Your task to perform on an android device: Search for vegetarian restaurants on Maps Image 0: 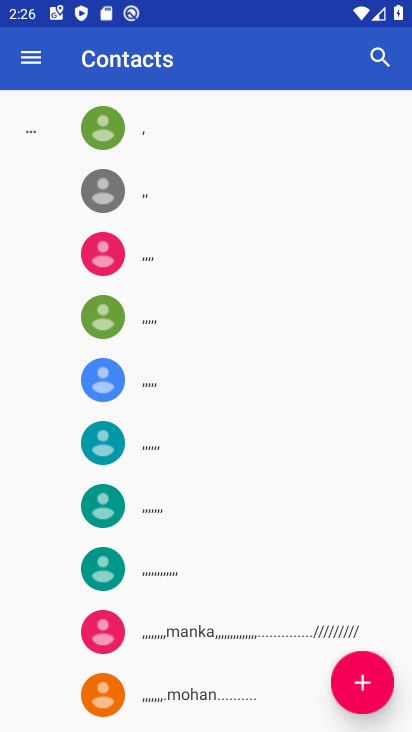
Step 0: press home button
Your task to perform on an android device: Search for vegetarian restaurants on Maps Image 1: 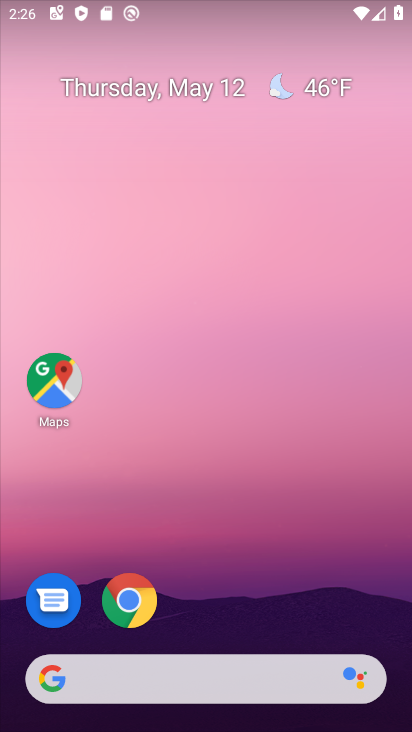
Step 1: drag from (206, 620) to (221, 257)
Your task to perform on an android device: Search for vegetarian restaurants on Maps Image 2: 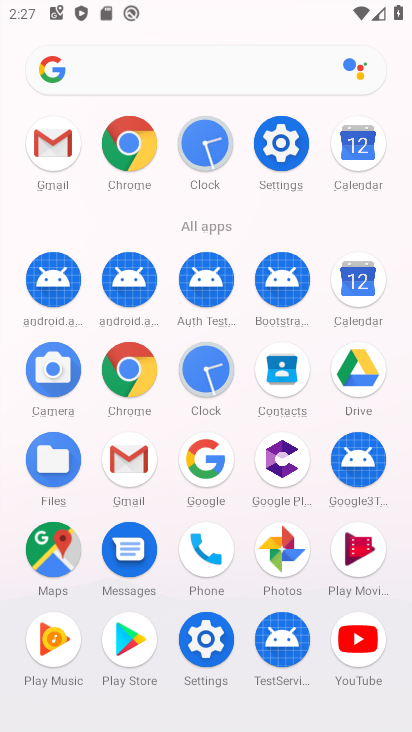
Step 2: click (38, 540)
Your task to perform on an android device: Search for vegetarian restaurants on Maps Image 3: 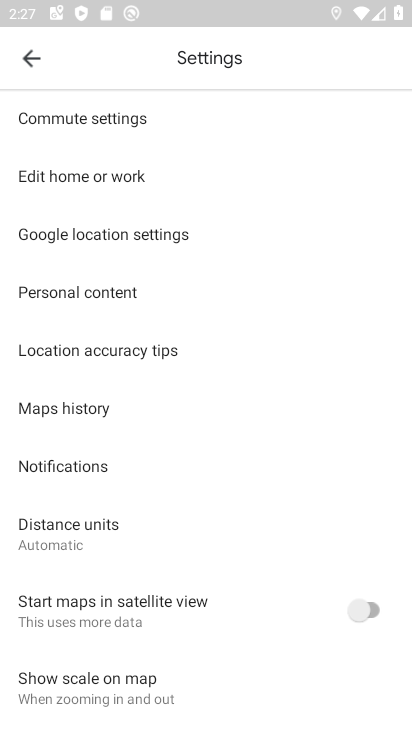
Step 3: click (20, 52)
Your task to perform on an android device: Search for vegetarian restaurants on Maps Image 4: 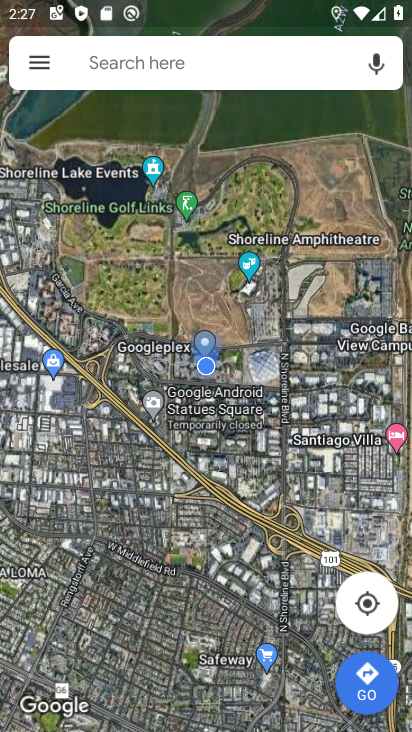
Step 4: click (147, 53)
Your task to perform on an android device: Search for vegetarian restaurants on Maps Image 5: 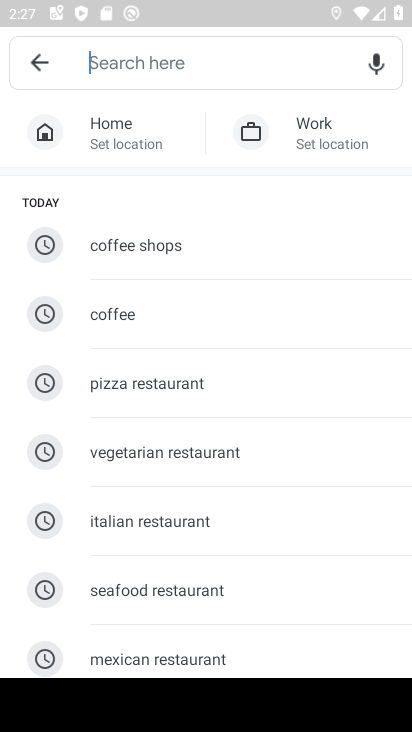
Step 5: type "vegetarian restaurants"
Your task to perform on an android device: Search for vegetarian restaurants on Maps Image 6: 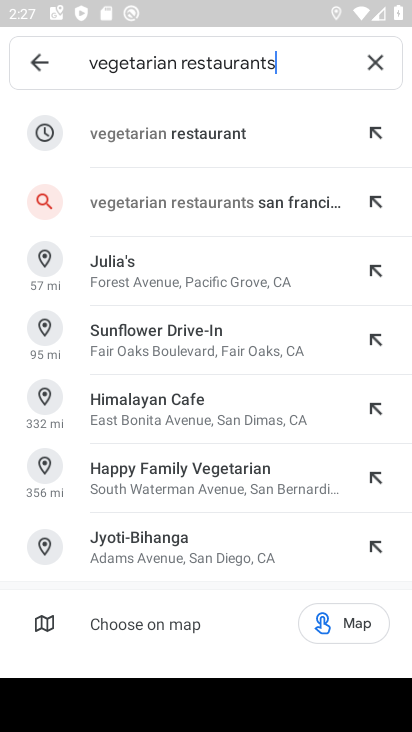
Step 6: click (212, 141)
Your task to perform on an android device: Search for vegetarian restaurants on Maps Image 7: 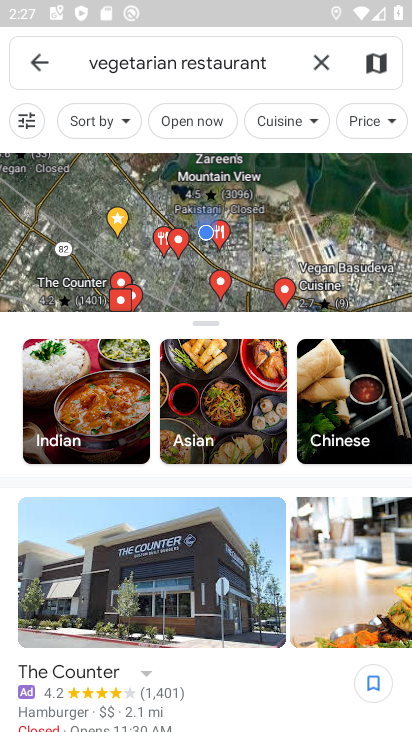
Step 7: task complete